Your task to perform on an android device: manage bookmarks in the chrome app Image 0: 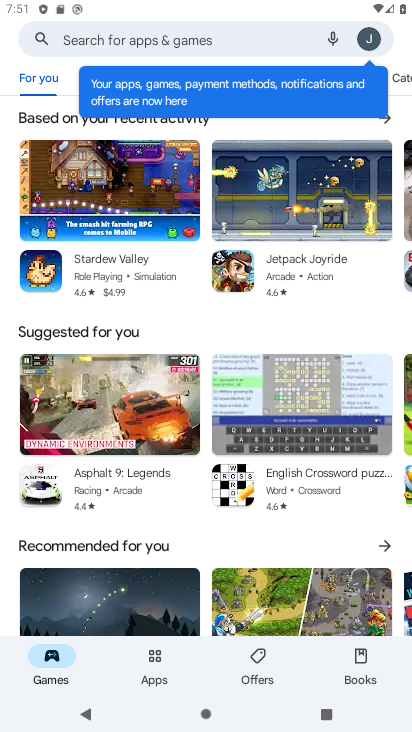
Step 0: press home button
Your task to perform on an android device: manage bookmarks in the chrome app Image 1: 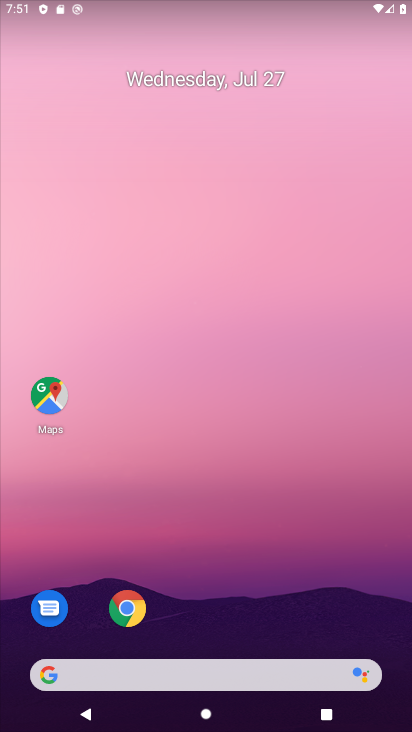
Step 1: click (129, 618)
Your task to perform on an android device: manage bookmarks in the chrome app Image 2: 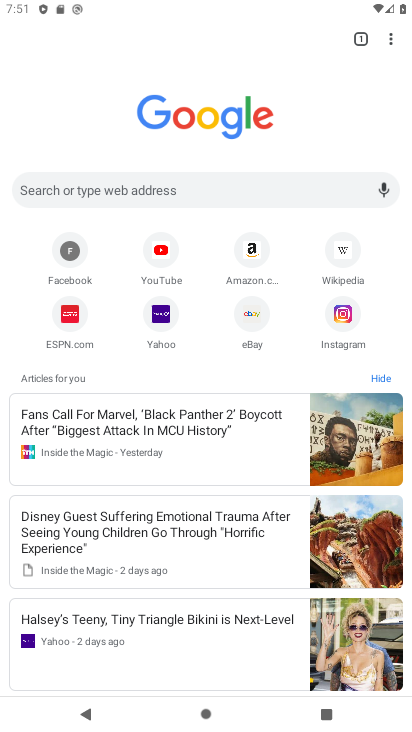
Step 2: click (391, 37)
Your task to perform on an android device: manage bookmarks in the chrome app Image 3: 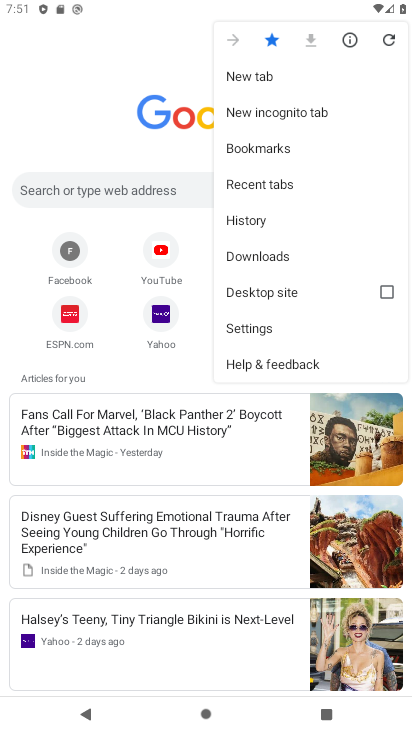
Step 3: click (274, 148)
Your task to perform on an android device: manage bookmarks in the chrome app Image 4: 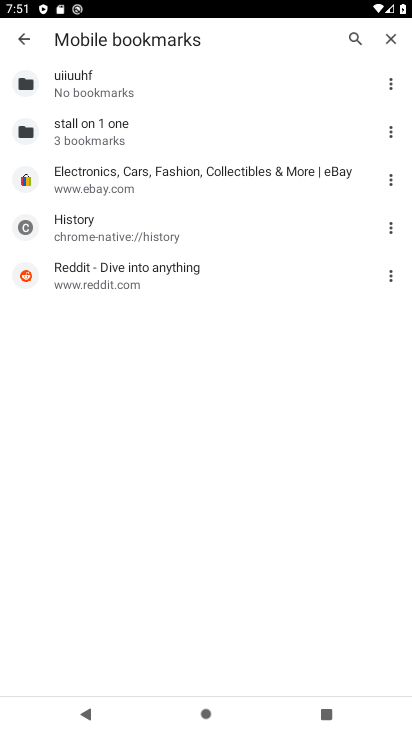
Step 4: task complete